Your task to perform on an android device: turn on priority inbox in the gmail app Image 0: 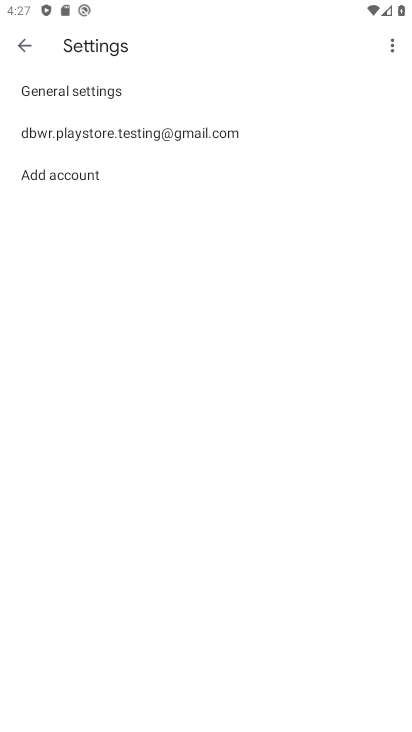
Step 0: click (130, 136)
Your task to perform on an android device: turn on priority inbox in the gmail app Image 1: 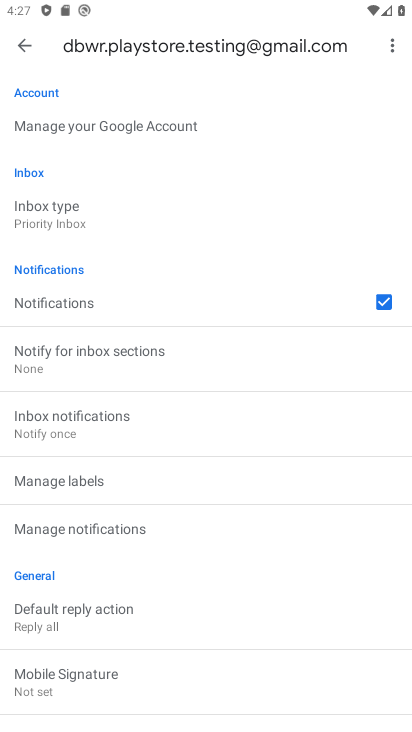
Step 1: click (34, 204)
Your task to perform on an android device: turn on priority inbox in the gmail app Image 2: 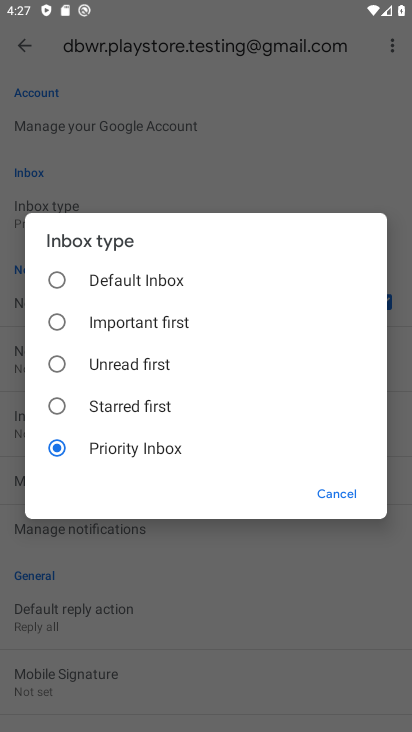
Step 2: click (172, 441)
Your task to perform on an android device: turn on priority inbox in the gmail app Image 3: 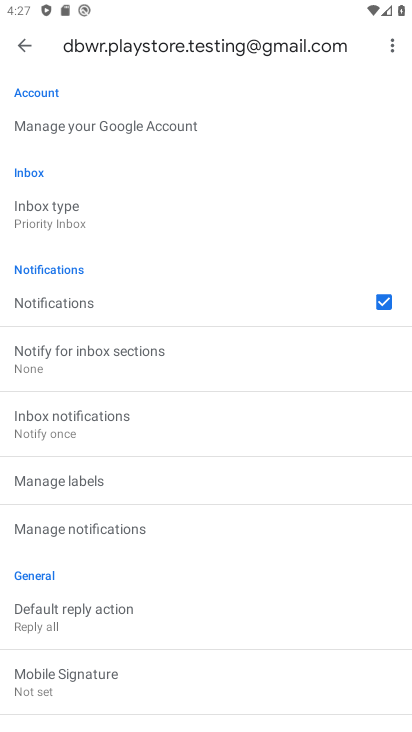
Step 3: task complete